Your task to perform on an android device: Empty the shopping cart on bestbuy.com. Image 0: 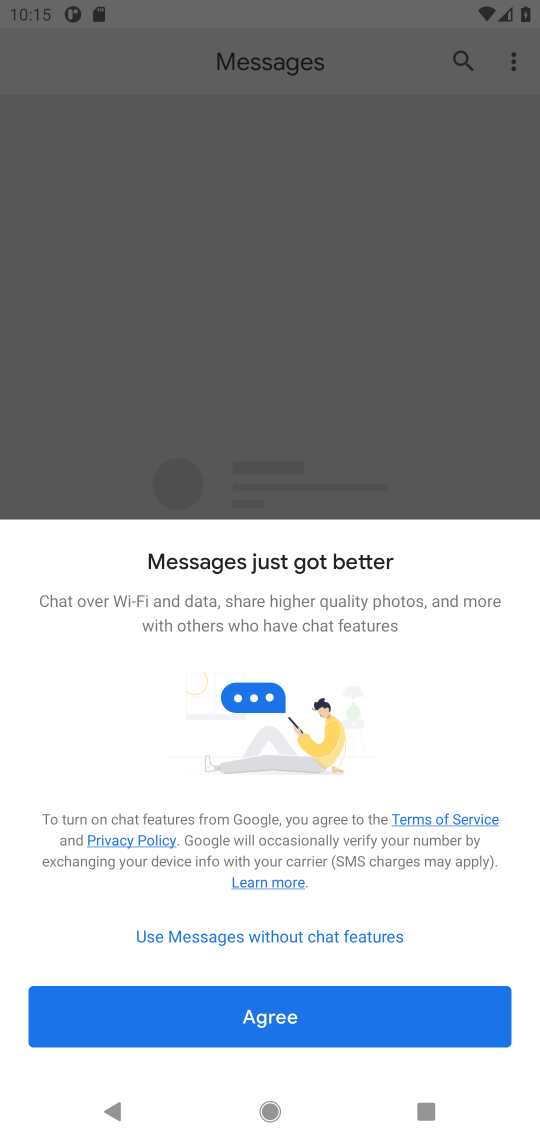
Step 0: press home button
Your task to perform on an android device: Empty the shopping cart on bestbuy.com. Image 1: 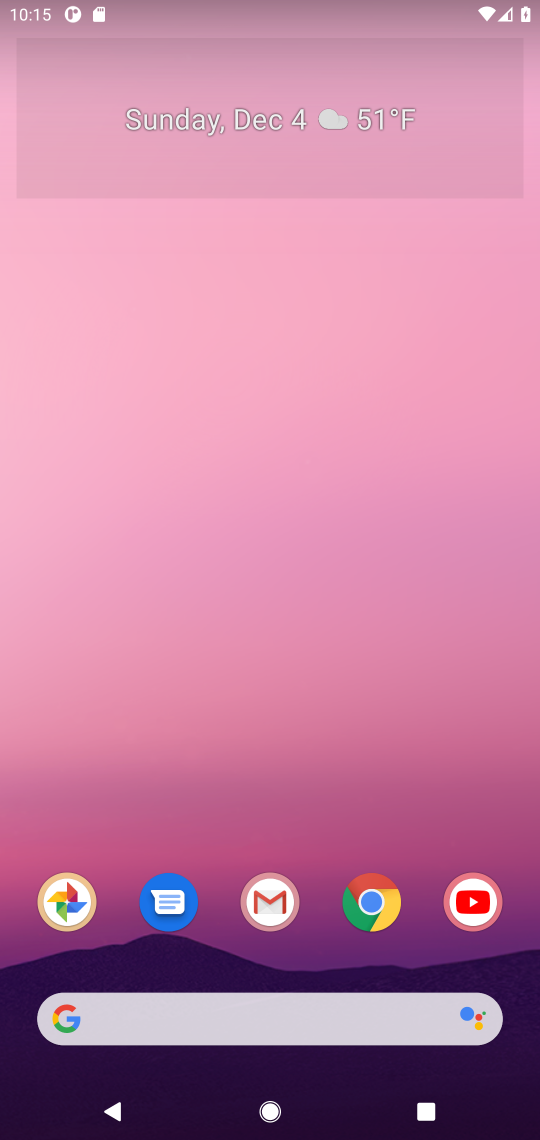
Step 1: click (367, 900)
Your task to perform on an android device: Empty the shopping cart on bestbuy.com. Image 2: 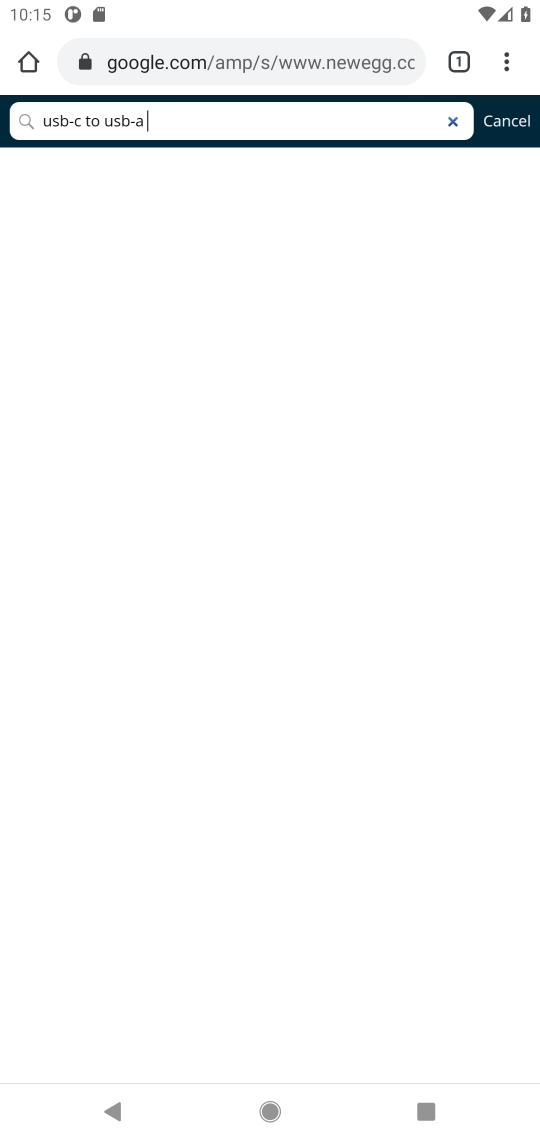
Step 2: click (265, 75)
Your task to perform on an android device: Empty the shopping cart on bestbuy.com. Image 3: 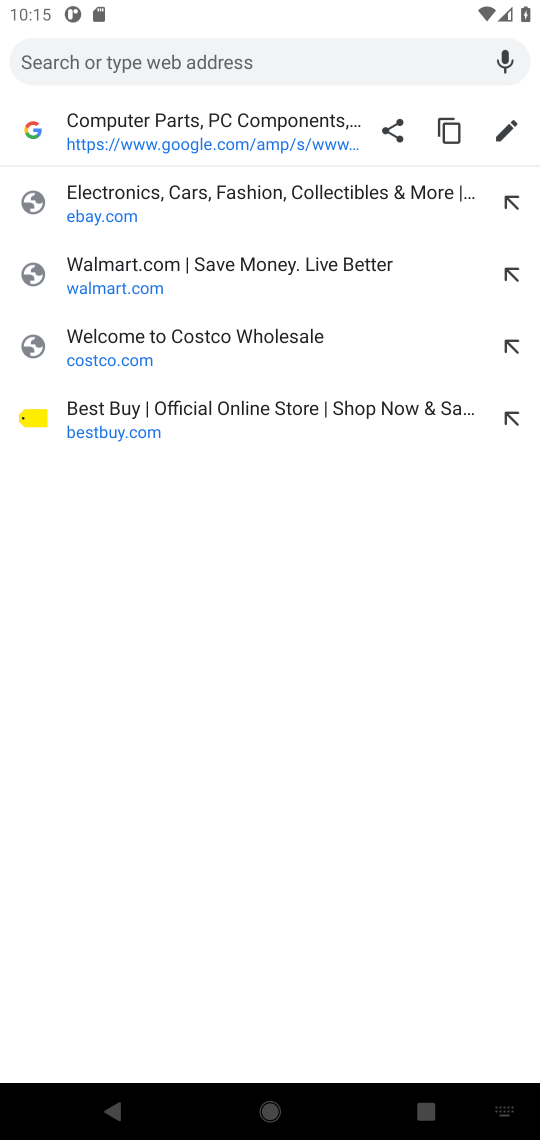
Step 3: click (172, 398)
Your task to perform on an android device: Empty the shopping cart on bestbuy.com. Image 4: 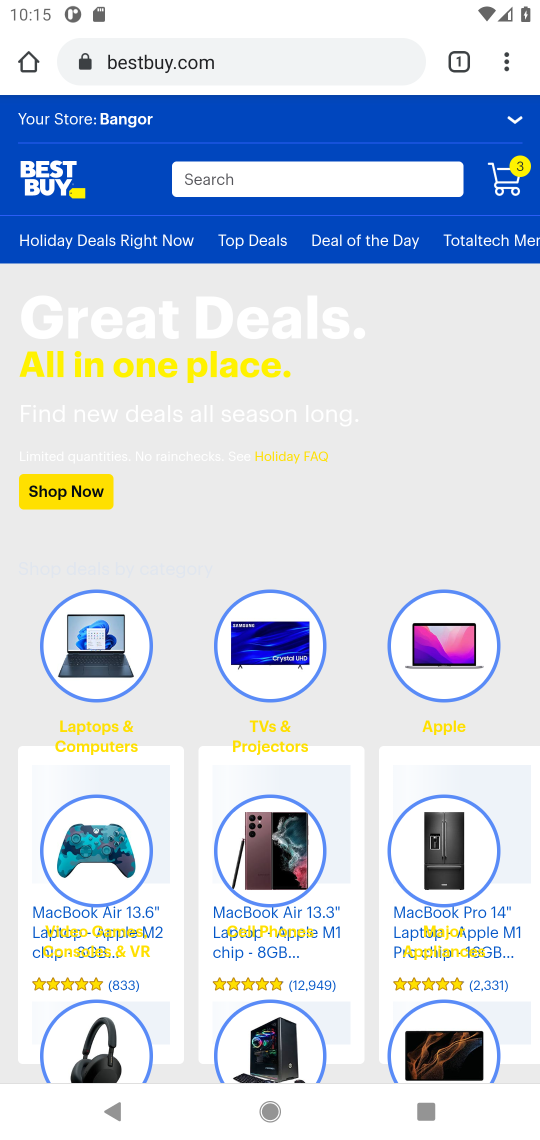
Step 4: click (492, 196)
Your task to perform on an android device: Empty the shopping cart on bestbuy.com. Image 5: 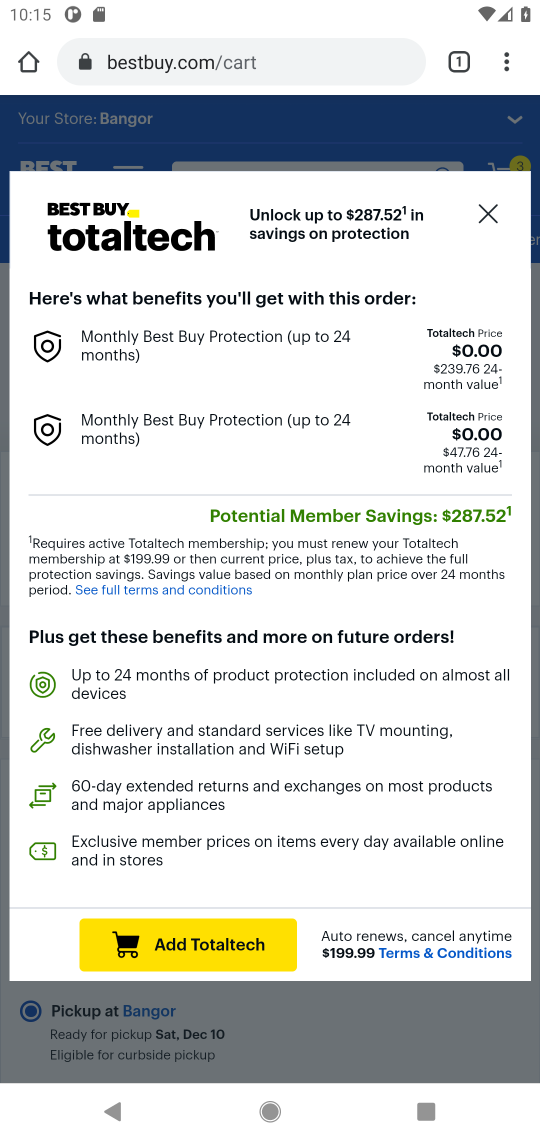
Step 5: click (496, 214)
Your task to perform on an android device: Empty the shopping cart on bestbuy.com. Image 6: 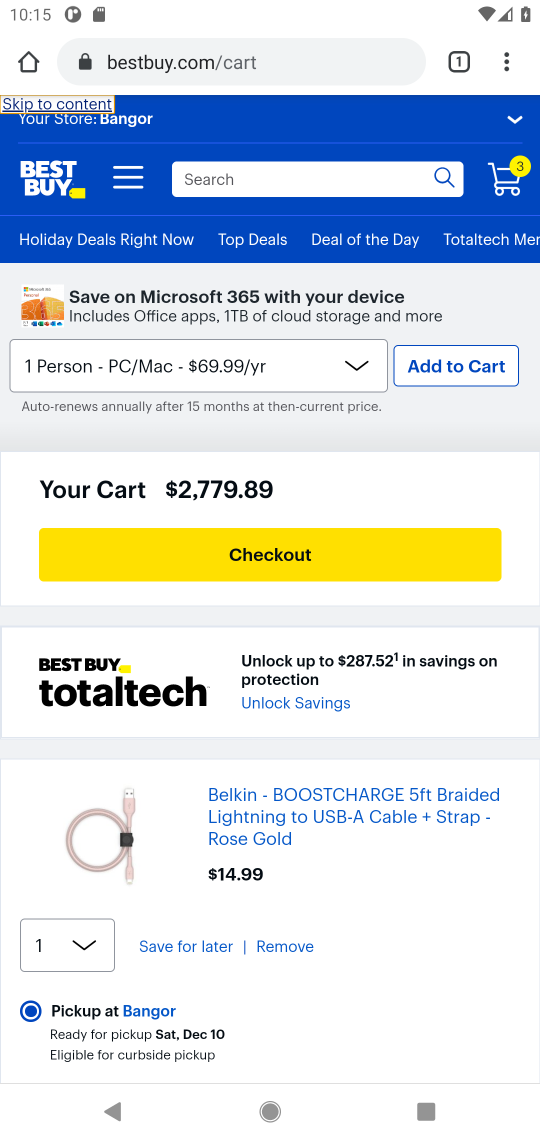
Step 6: click (293, 943)
Your task to perform on an android device: Empty the shopping cart on bestbuy.com. Image 7: 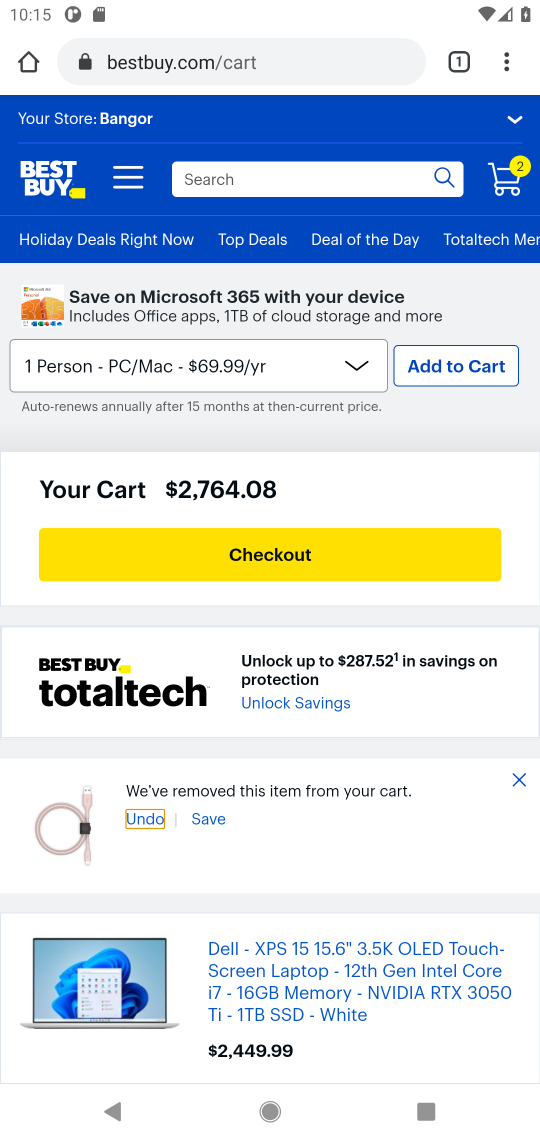
Step 7: drag from (184, 878) to (259, 238)
Your task to perform on an android device: Empty the shopping cart on bestbuy.com. Image 8: 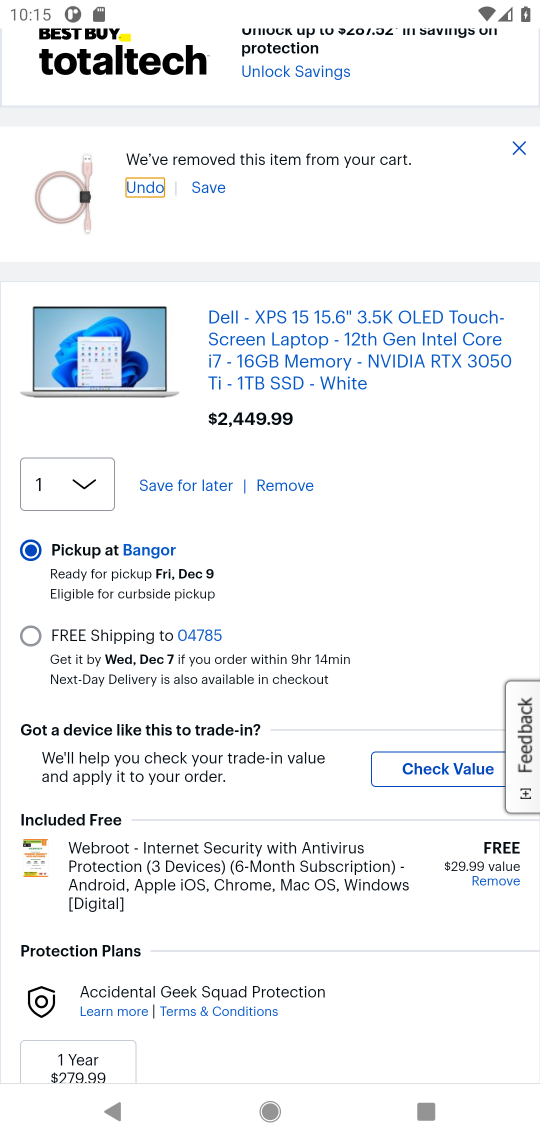
Step 8: click (266, 488)
Your task to perform on an android device: Empty the shopping cart on bestbuy.com. Image 9: 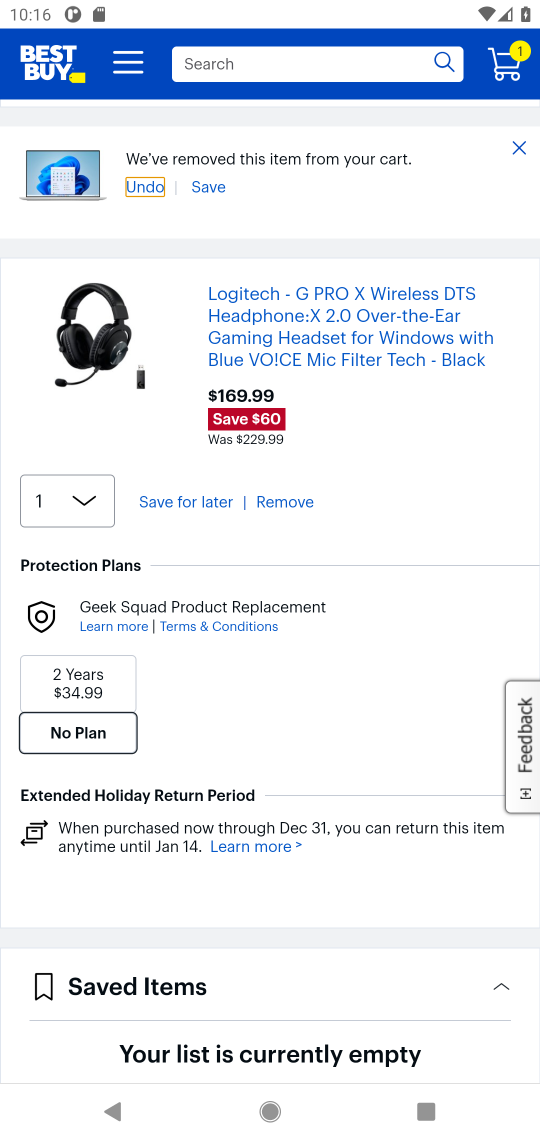
Step 9: click (304, 504)
Your task to perform on an android device: Empty the shopping cart on bestbuy.com. Image 10: 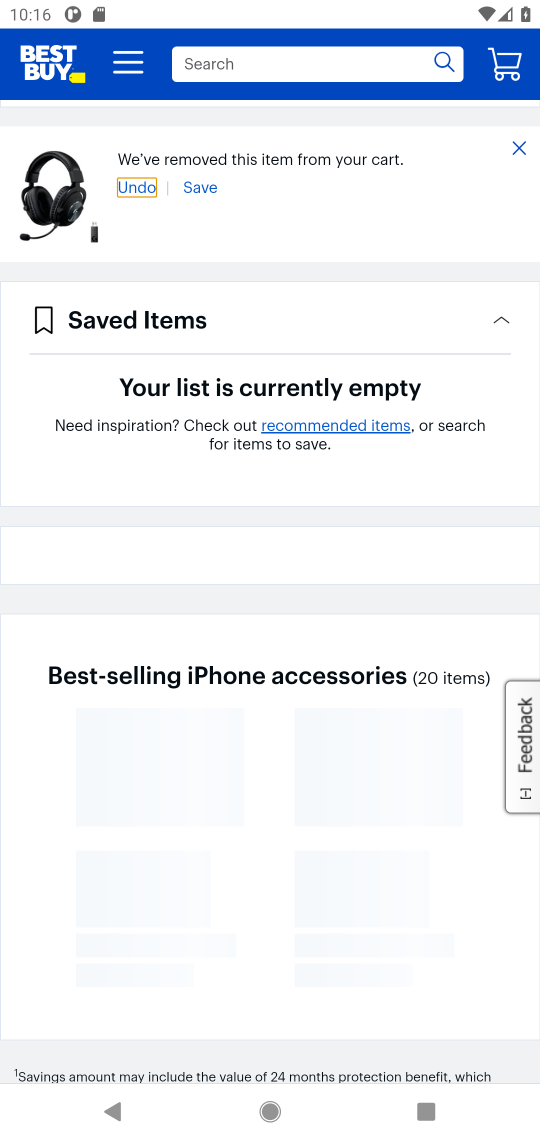
Step 10: task complete